Your task to perform on an android device: search for starred emails in the gmail app Image 0: 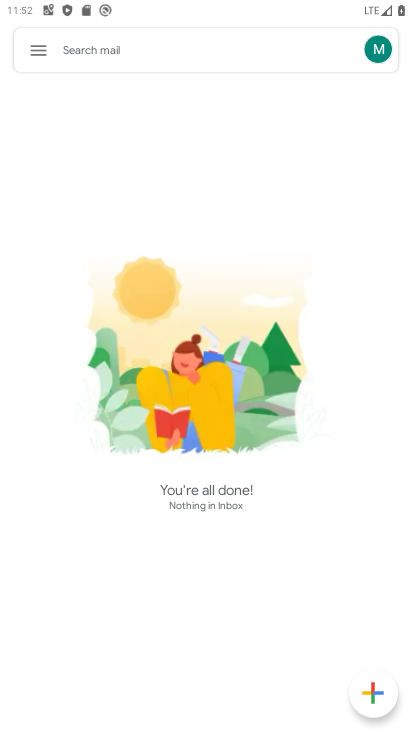
Step 0: press home button
Your task to perform on an android device: search for starred emails in the gmail app Image 1: 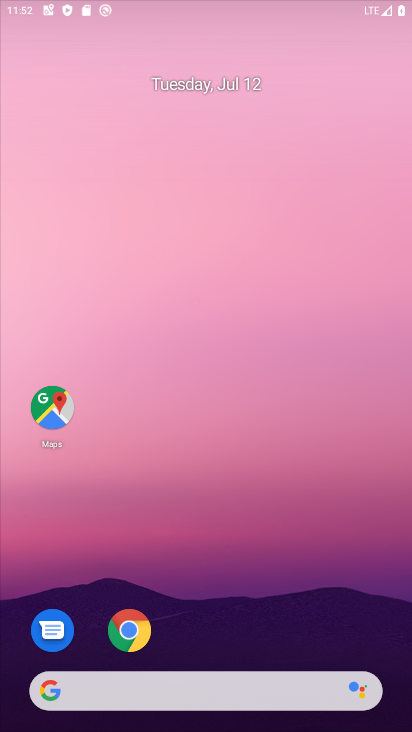
Step 1: drag from (396, 673) to (259, 30)
Your task to perform on an android device: search for starred emails in the gmail app Image 2: 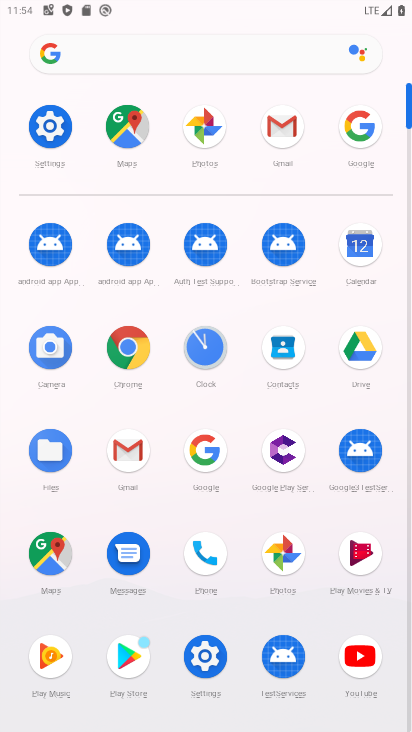
Step 2: click (128, 457)
Your task to perform on an android device: search for starred emails in the gmail app Image 3: 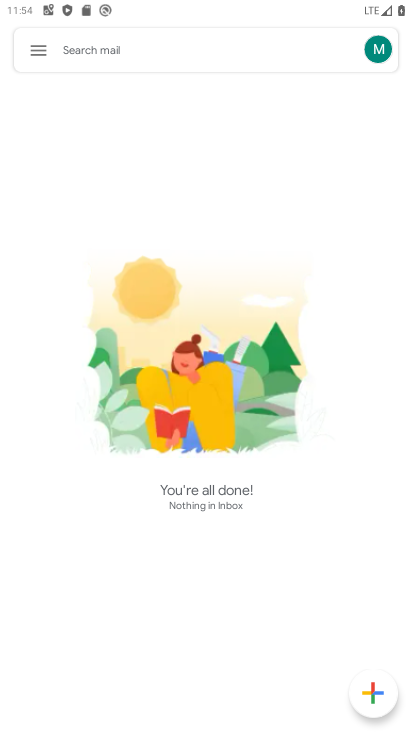
Step 3: click (29, 62)
Your task to perform on an android device: search for starred emails in the gmail app Image 4: 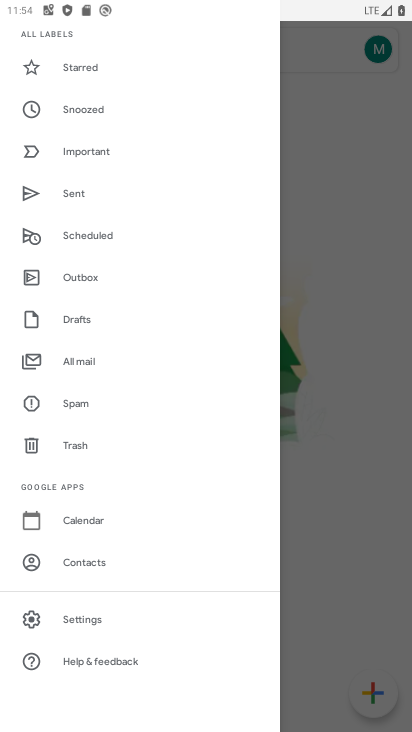
Step 4: click (75, 71)
Your task to perform on an android device: search for starred emails in the gmail app Image 5: 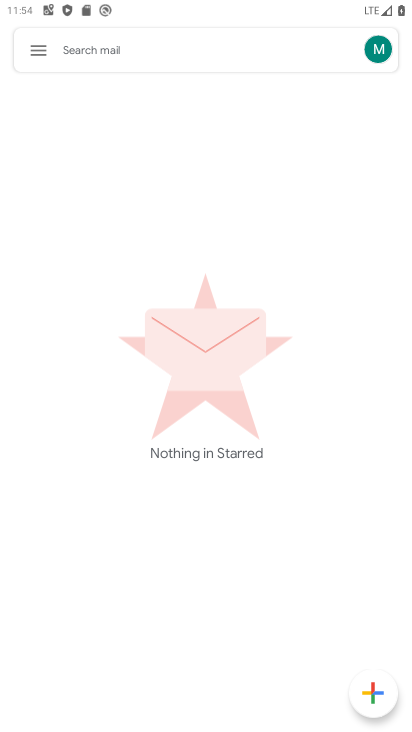
Step 5: task complete